Your task to perform on an android device: Open internet settings Image 0: 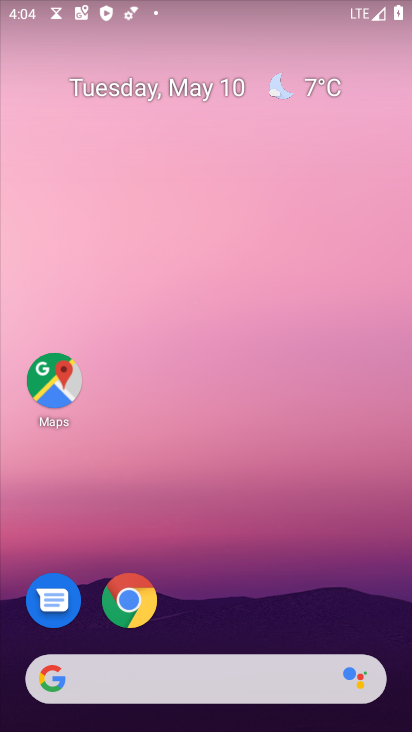
Step 0: drag from (221, 570) to (313, 155)
Your task to perform on an android device: Open internet settings Image 1: 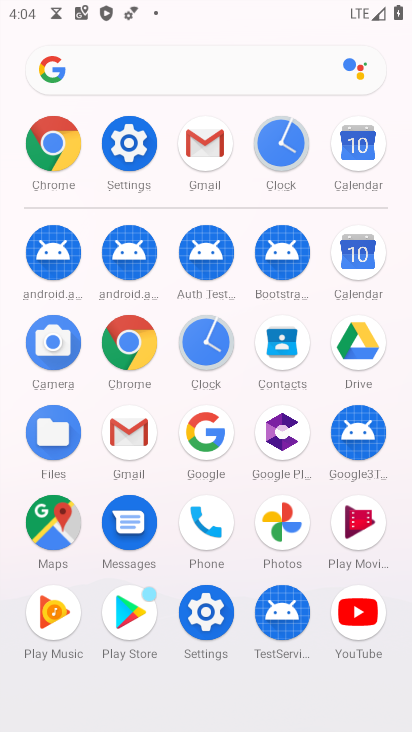
Step 1: click (135, 147)
Your task to perform on an android device: Open internet settings Image 2: 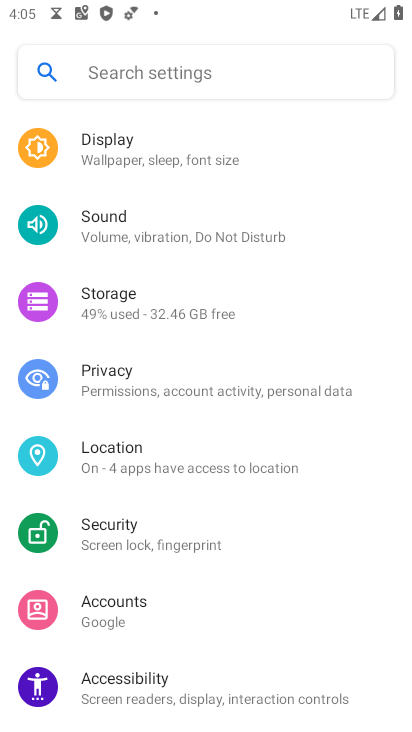
Step 2: drag from (141, 142) to (122, 631)
Your task to perform on an android device: Open internet settings Image 3: 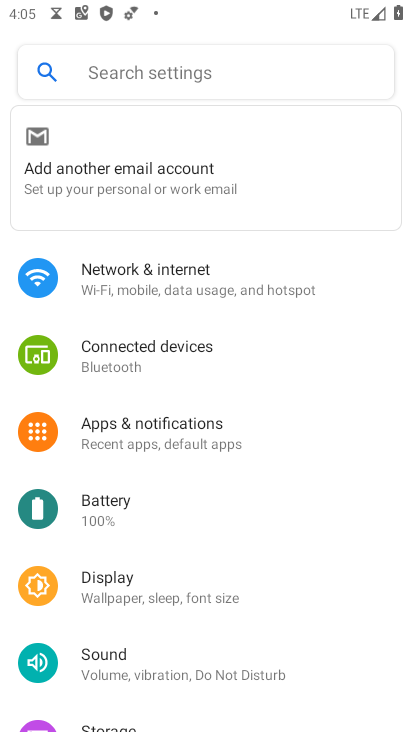
Step 3: click (176, 252)
Your task to perform on an android device: Open internet settings Image 4: 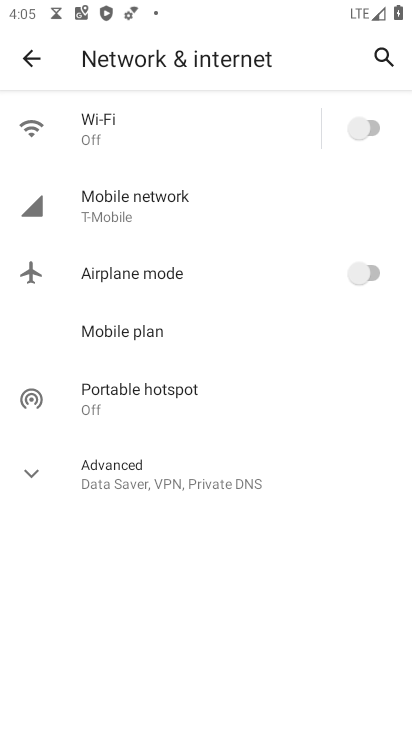
Step 4: drag from (206, 562) to (262, 209)
Your task to perform on an android device: Open internet settings Image 5: 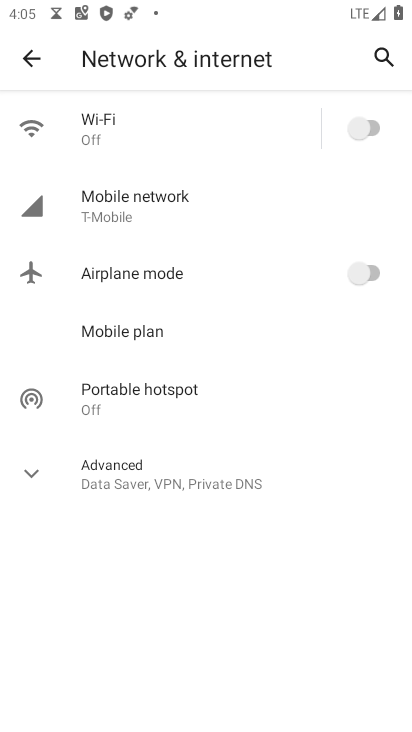
Step 5: drag from (223, 205) to (200, 568)
Your task to perform on an android device: Open internet settings Image 6: 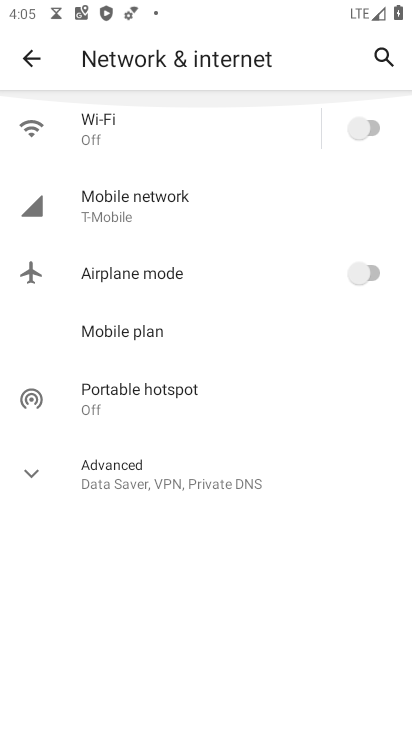
Step 6: click (243, 193)
Your task to perform on an android device: Open internet settings Image 7: 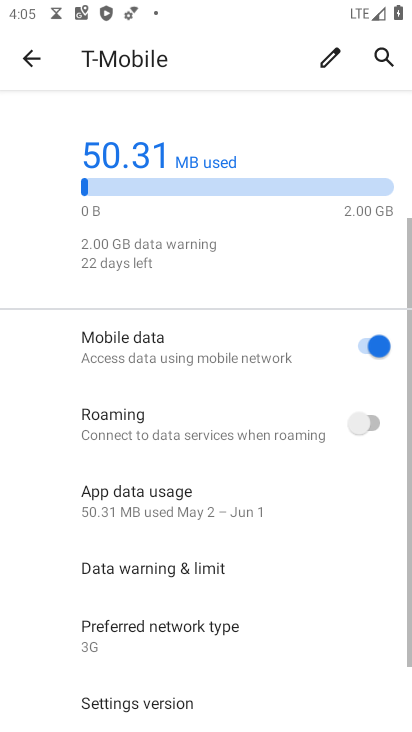
Step 7: drag from (230, 550) to (284, 167)
Your task to perform on an android device: Open internet settings Image 8: 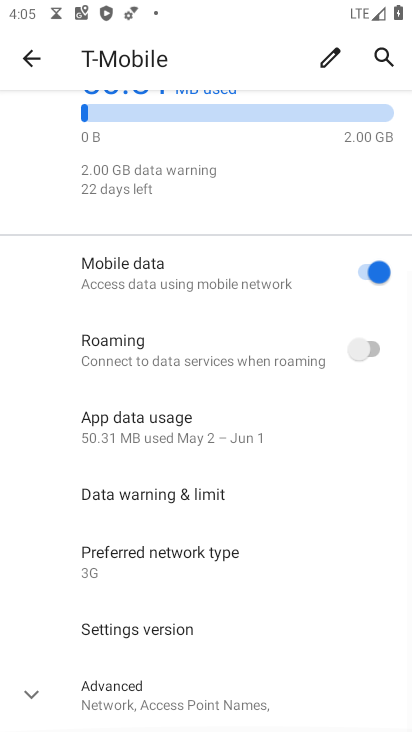
Step 8: drag from (197, 691) to (257, 324)
Your task to perform on an android device: Open internet settings Image 9: 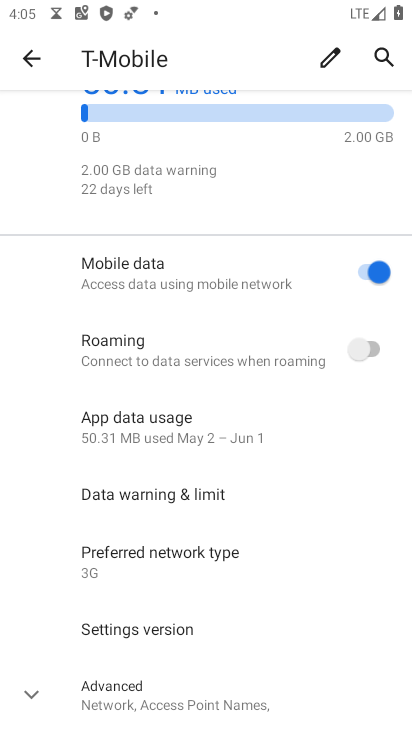
Step 9: drag from (230, 229) to (243, 664)
Your task to perform on an android device: Open internet settings Image 10: 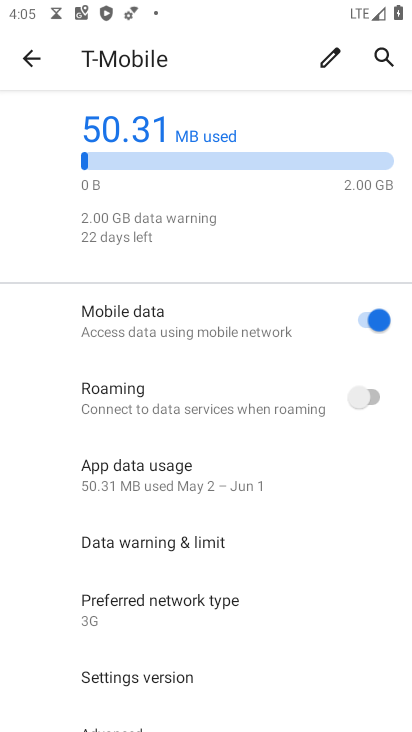
Step 10: click (30, 49)
Your task to perform on an android device: Open internet settings Image 11: 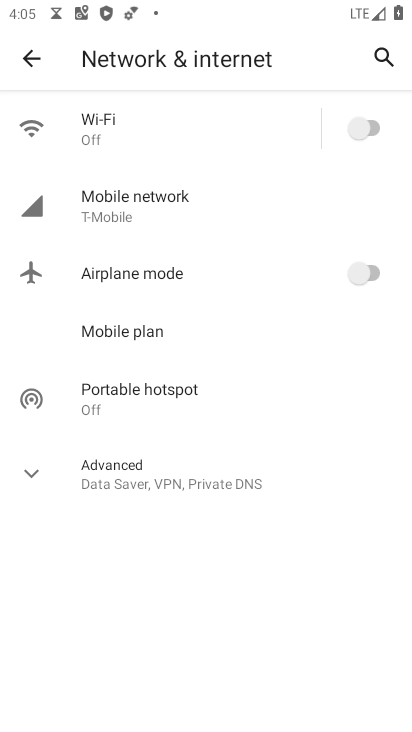
Step 11: task complete